Your task to perform on an android device: Open Maps and search for coffee Image 0: 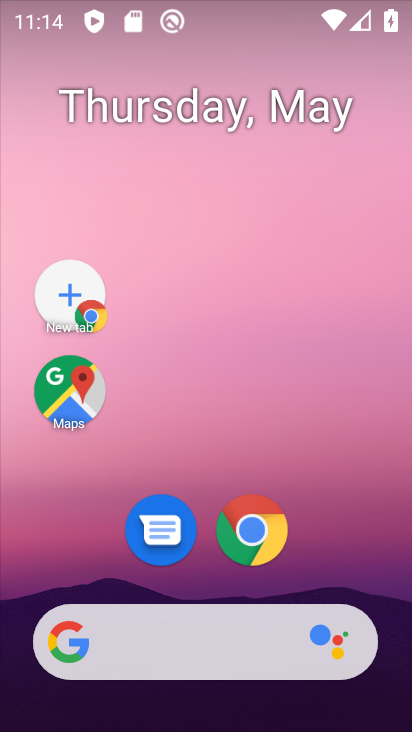
Step 0: drag from (292, 669) to (248, 348)
Your task to perform on an android device: Open Maps and search for coffee Image 1: 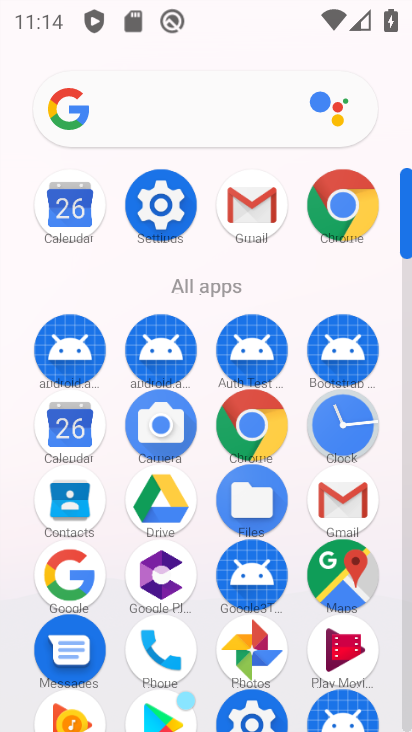
Step 1: click (342, 566)
Your task to perform on an android device: Open Maps and search for coffee Image 2: 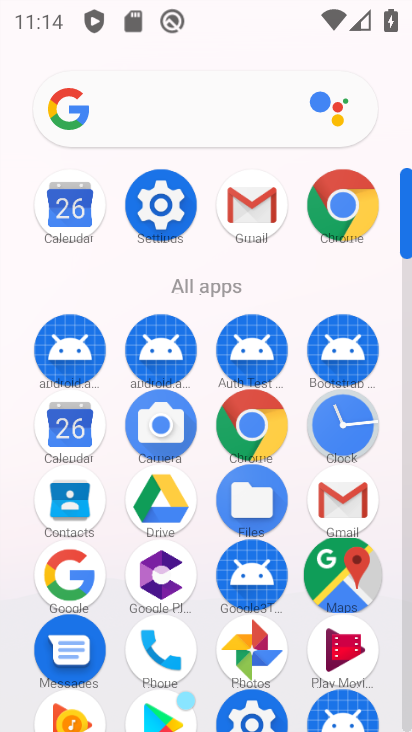
Step 2: click (342, 567)
Your task to perform on an android device: Open Maps and search for coffee Image 3: 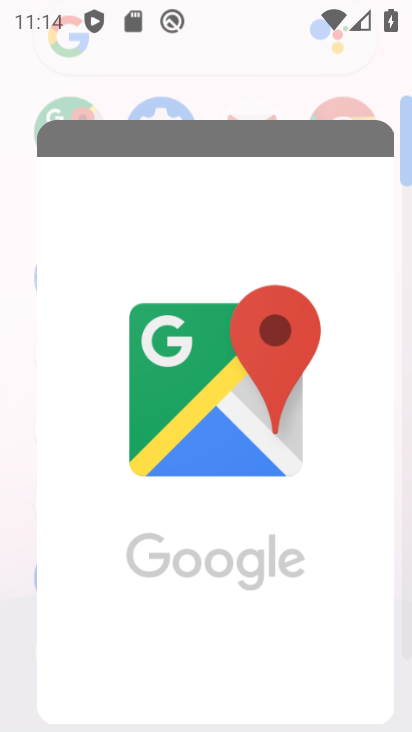
Step 3: click (342, 567)
Your task to perform on an android device: Open Maps and search for coffee Image 4: 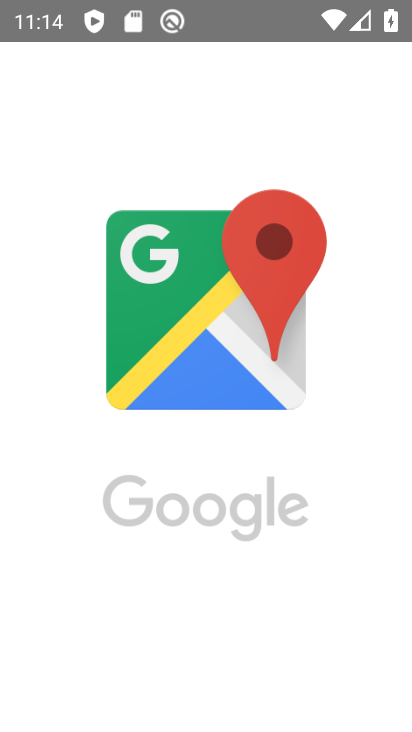
Step 4: click (342, 567)
Your task to perform on an android device: Open Maps and search for coffee Image 5: 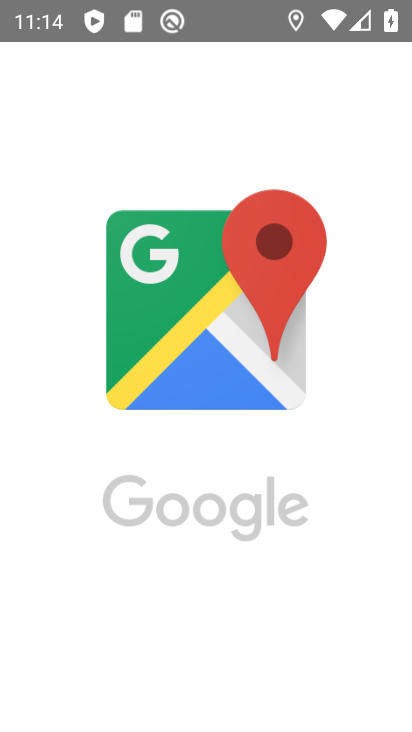
Step 5: click (342, 567)
Your task to perform on an android device: Open Maps and search for coffee Image 6: 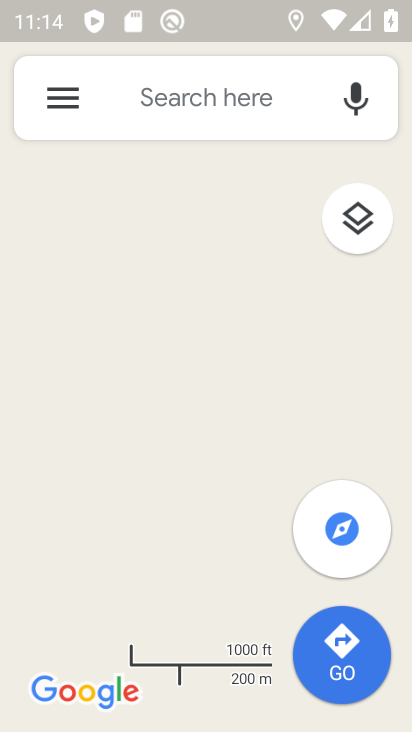
Step 6: click (149, 90)
Your task to perform on an android device: Open Maps and search for coffee Image 7: 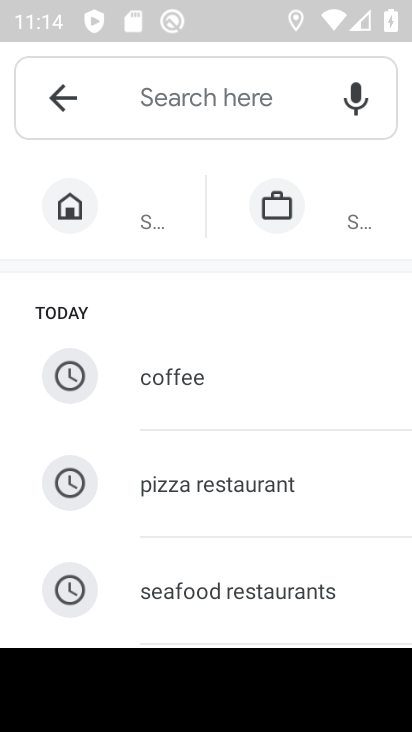
Step 7: click (177, 379)
Your task to perform on an android device: Open Maps and search for coffee Image 8: 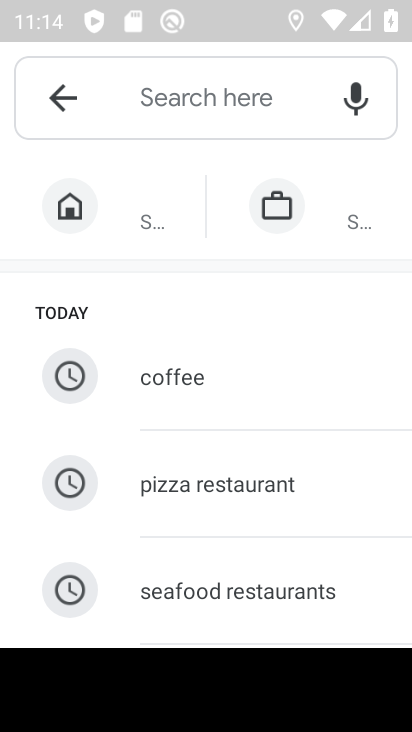
Step 8: click (177, 379)
Your task to perform on an android device: Open Maps and search for coffee Image 9: 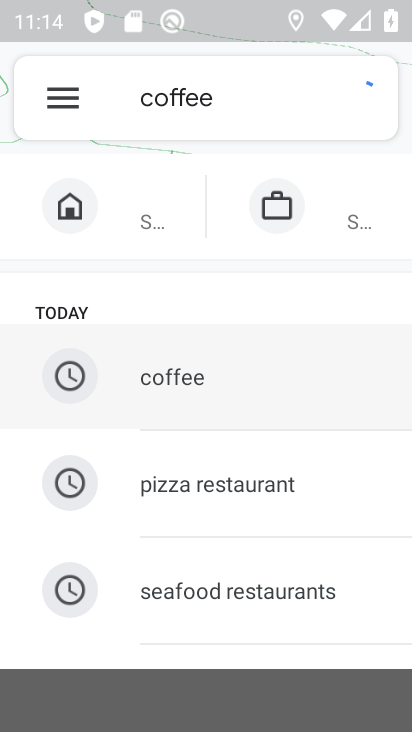
Step 9: click (177, 379)
Your task to perform on an android device: Open Maps and search for coffee Image 10: 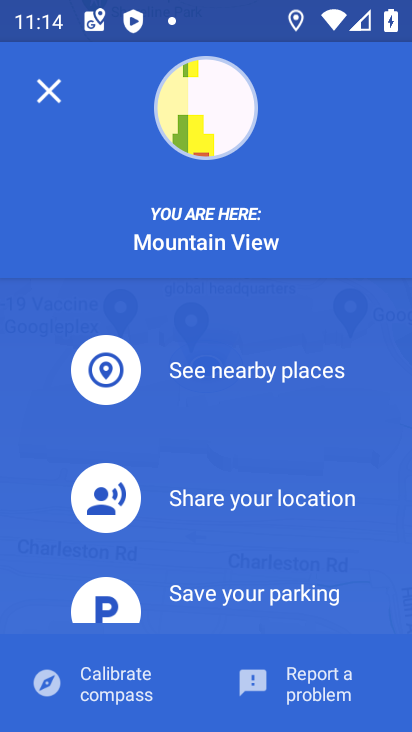
Step 10: task complete